Your task to perform on an android device: turn on sleep mode Image 0: 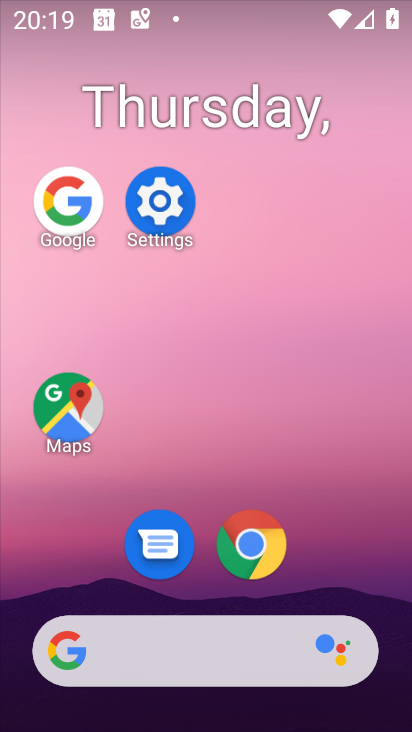
Step 0: drag from (234, 683) to (315, 107)
Your task to perform on an android device: turn on sleep mode Image 1: 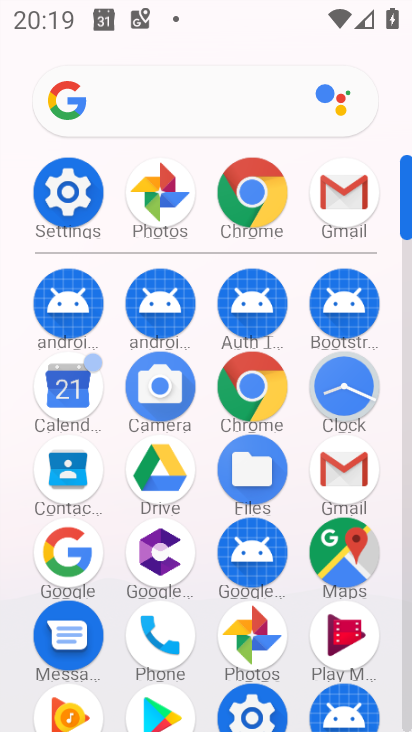
Step 1: click (77, 187)
Your task to perform on an android device: turn on sleep mode Image 2: 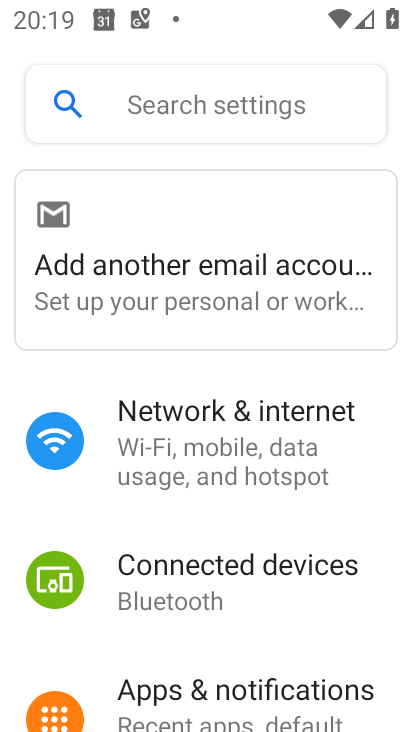
Step 2: click (159, 119)
Your task to perform on an android device: turn on sleep mode Image 3: 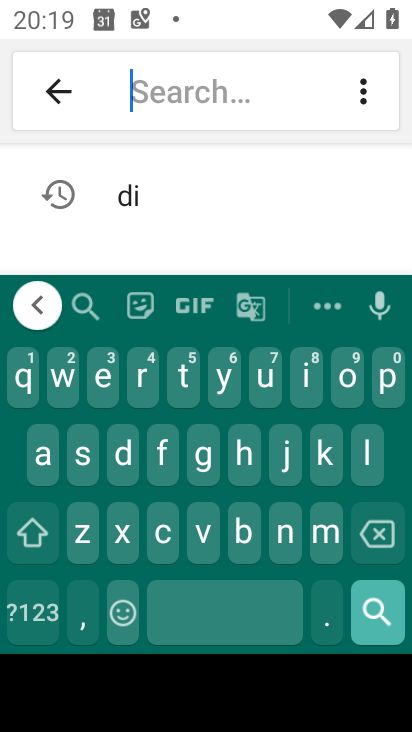
Step 3: click (82, 460)
Your task to perform on an android device: turn on sleep mode Image 4: 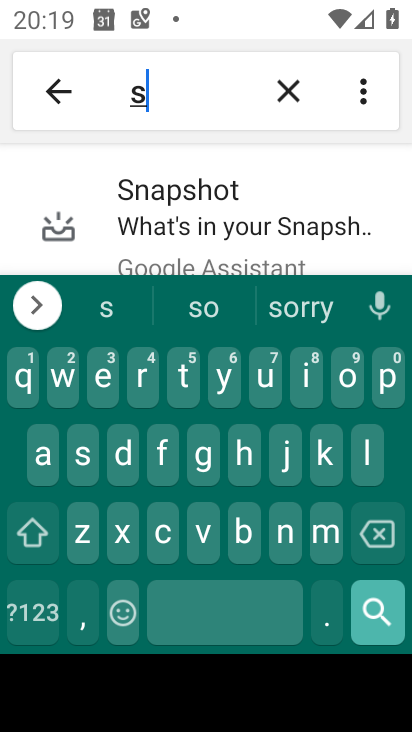
Step 4: click (370, 466)
Your task to perform on an android device: turn on sleep mode Image 5: 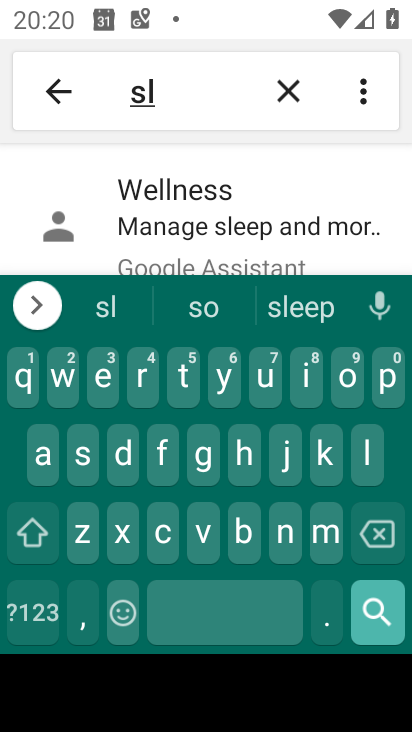
Step 5: click (105, 376)
Your task to perform on an android device: turn on sleep mode Image 6: 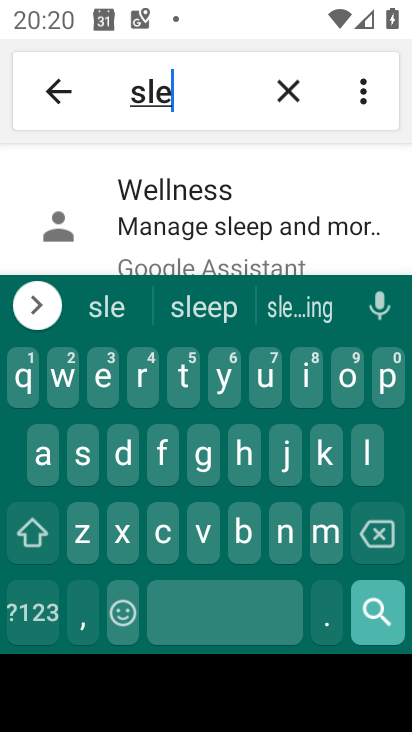
Step 6: click (219, 215)
Your task to perform on an android device: turn on sleep mode Image 7: 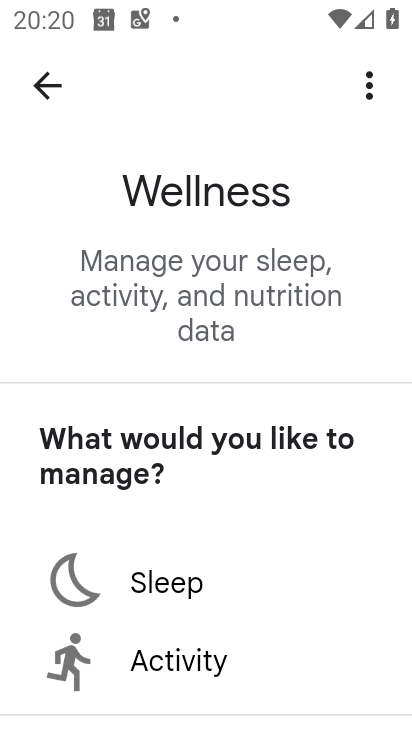
Step 7: click (172, 578)
Your task to perform on an android device: turn on sleep mode Image 8: 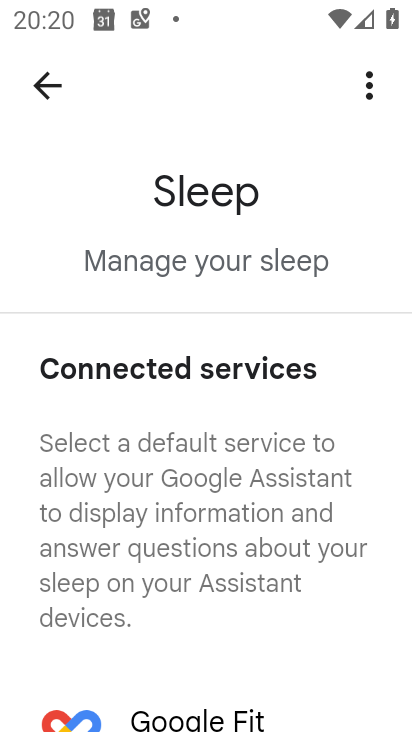
Step 8: task complete